Your task to perform on an android device: turn notification dots on Image 0: 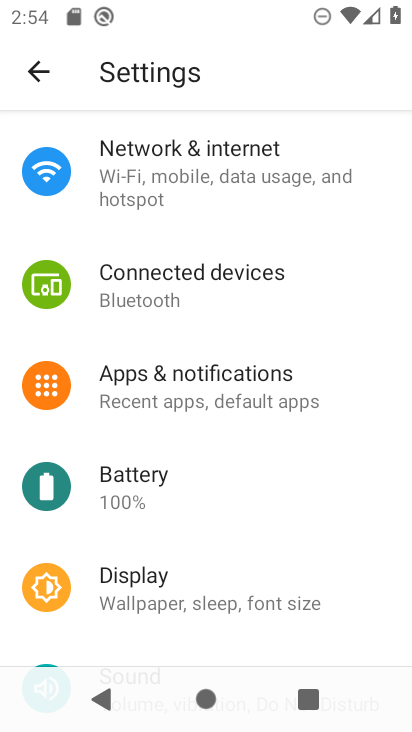
Step 0: click (236, 389)
Your task to perform on an android device: turn notification dots on Image 1: 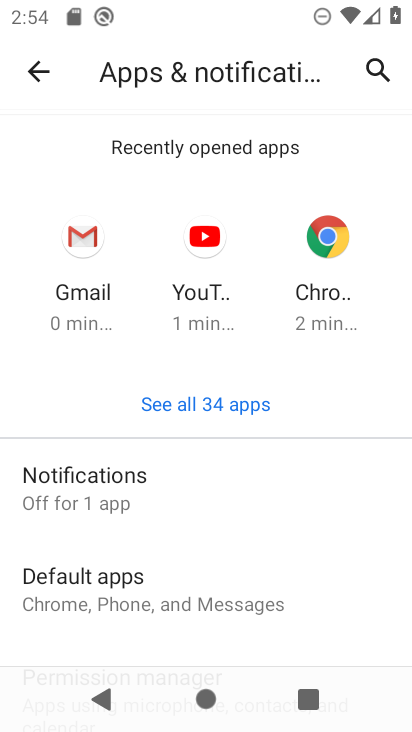
Step 1: click (153, 501)
Your task to perform on an android device: turn notification dots on Image 2: 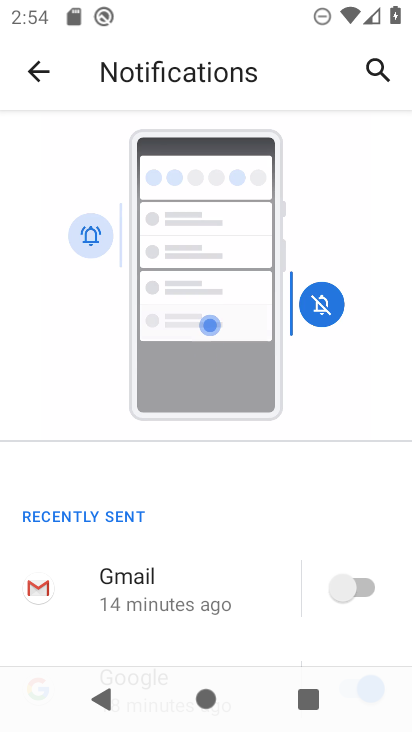
Step 2: drag from (208, 576) to (403, 64)
Your task to perform on an android device: turn notification dots on Image 3: 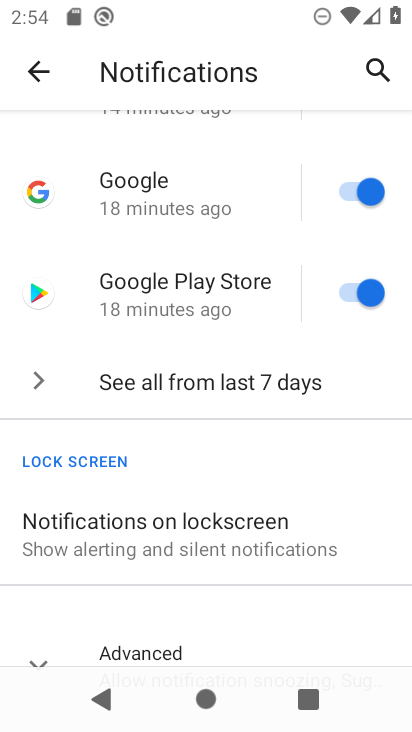
Step 3: drag from (256, 504) to (262, 266)
Your task to perform on an android device: turn notification dots on Image 4: 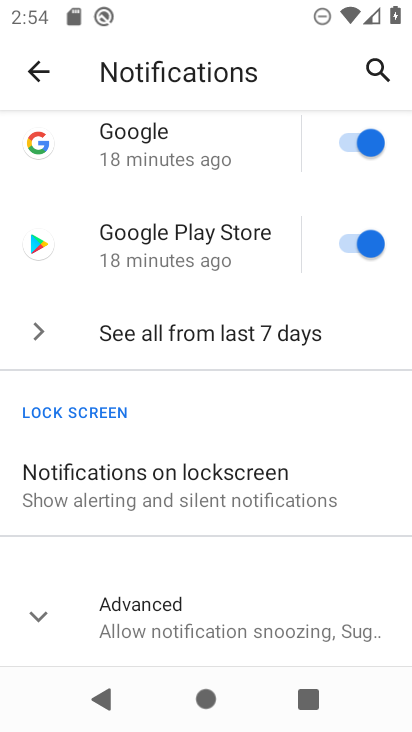
Step 4: click (188, 613)
Your task to perform on an android device: turn notification dots on Image 5: 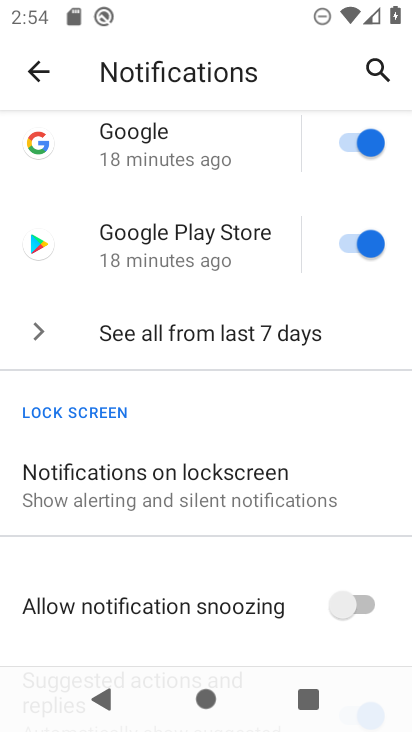
Step 5: task complete